Your task to perform on an android device: turn on translation in the chrome app Image 0: 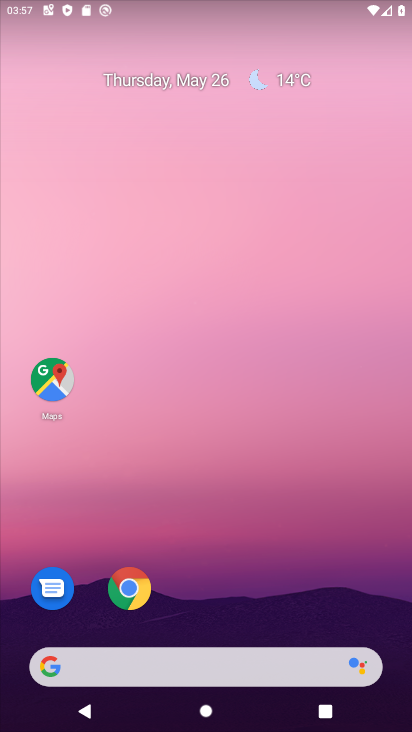
Step 0: click (148, 586)
Your task to perform on an android device: turn on translation in the chrome app Image 1: 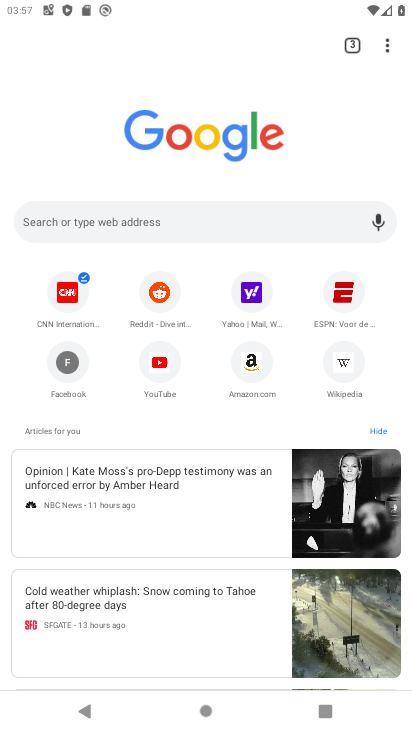
Step 1: click (397, 50)
Your task to perform on an android device: turn on translation in the chrome app Image 2: 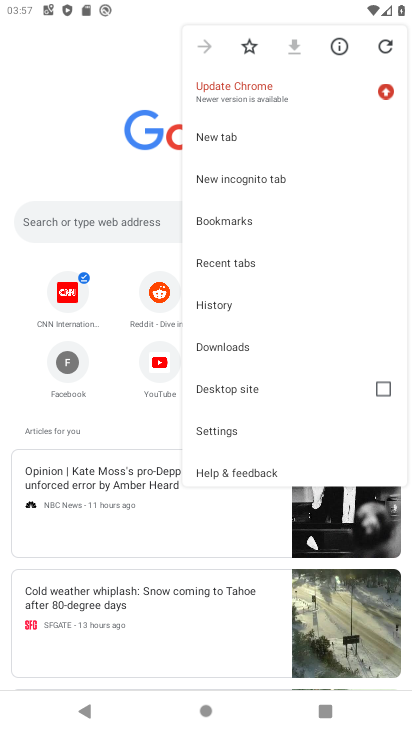
Step 2: click (239, 431)
Your task to perform on an android device: turn on translation in the chrome app Image 3: 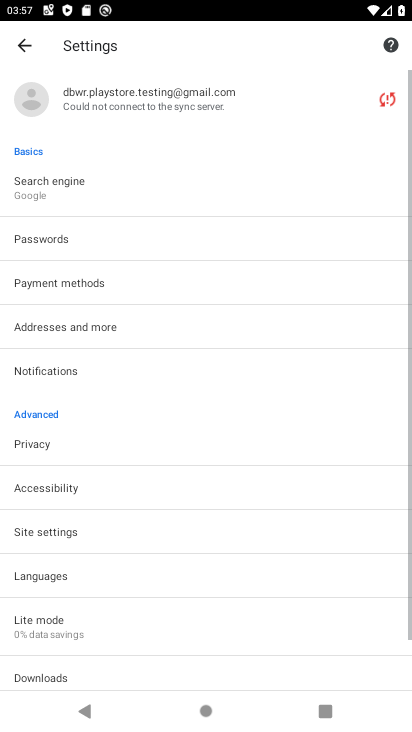
Step 3: click (185, 572)
Your task to perform on an android device: turn on translation in the chrome app Image 4: 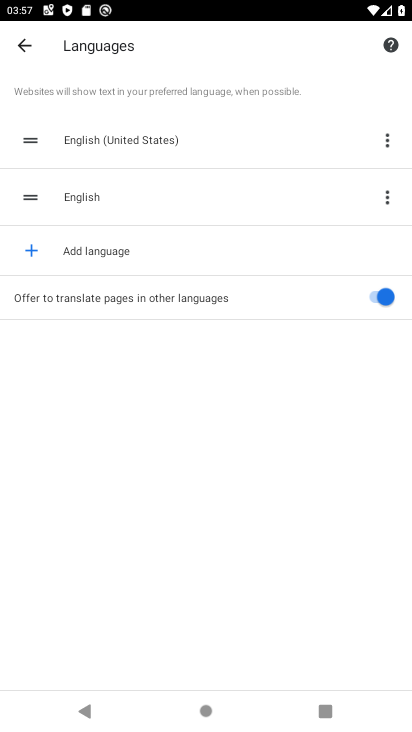
Step 4: click (385, 302)
Your task to perform on an android device: turn on translation in the chrome app Image 5: 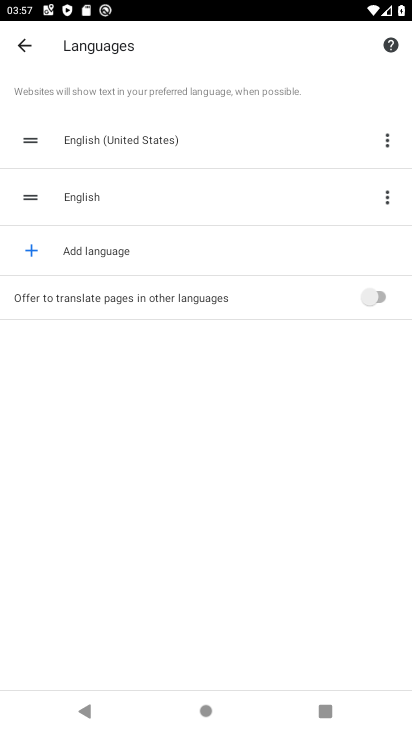
Step 5: task complete